Your task to perform on an android device: Open Google Maps Image 0: 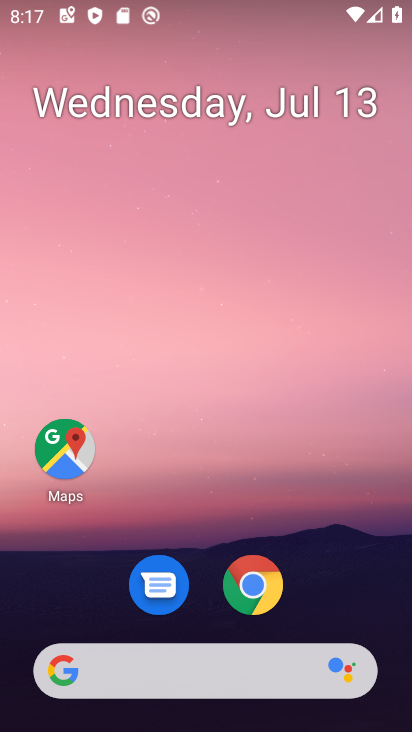
Step 0: click (72, 446)
Your task to perform on an android device: Open Google Maps Image 1: 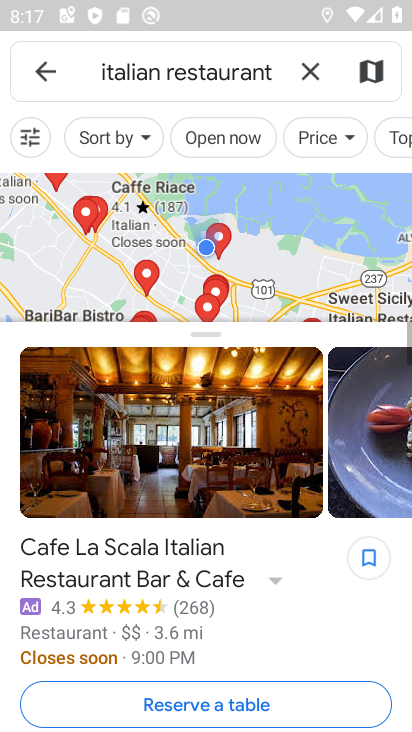
Step 1: click (72, 446)
Your task to perform on an android device: Open Google Maps Image 2: 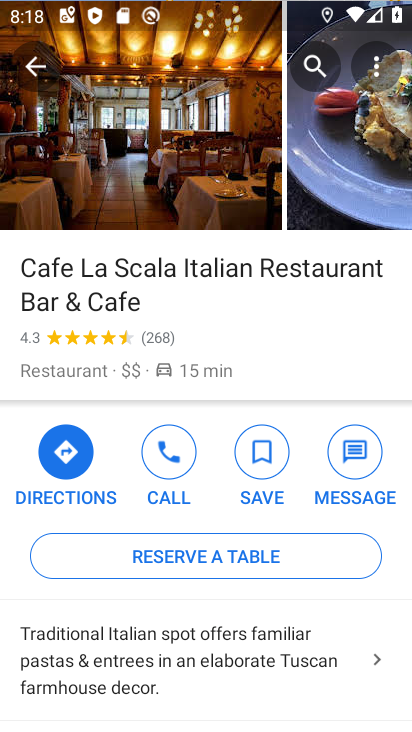
Step 2: press home button
Your task to perform on an android device: Open Google Maps Image 3: 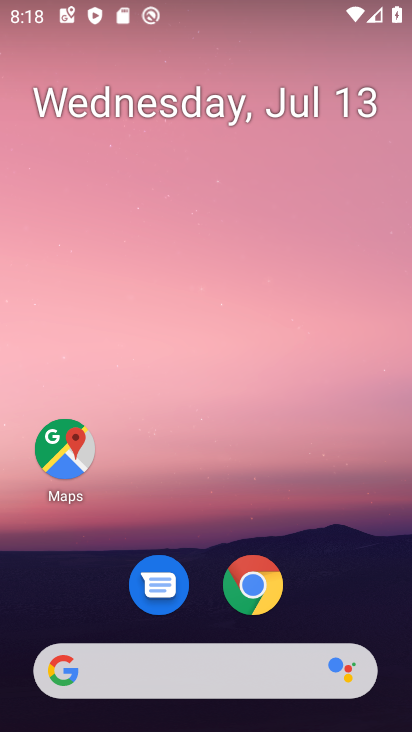
Step 3: click (68, 443)
Your task to perform on an android device: Open Google Maps Image 4: 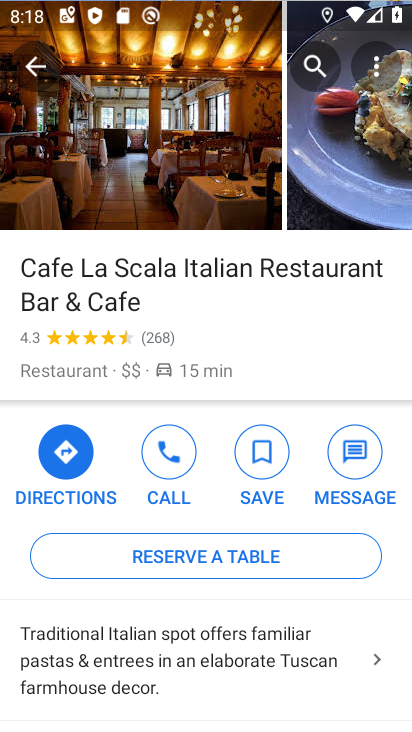
Step 4: drag from (180, 166) to (201, 629)
Your task to perform on an android device: Open Google Maps Image 5: 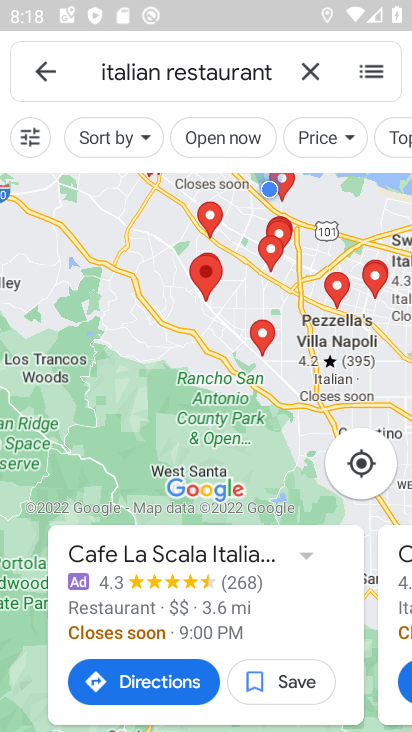
Step 5: click (311, 67)
Your task to perform on an android device: Open Google Maps Image 6: 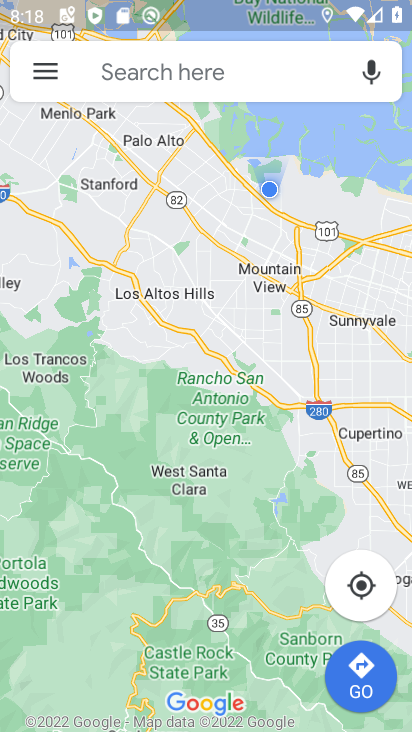
Step 6: task complete